Your task to perform on an android device: Go to calendar. Show me events next week Image 0: 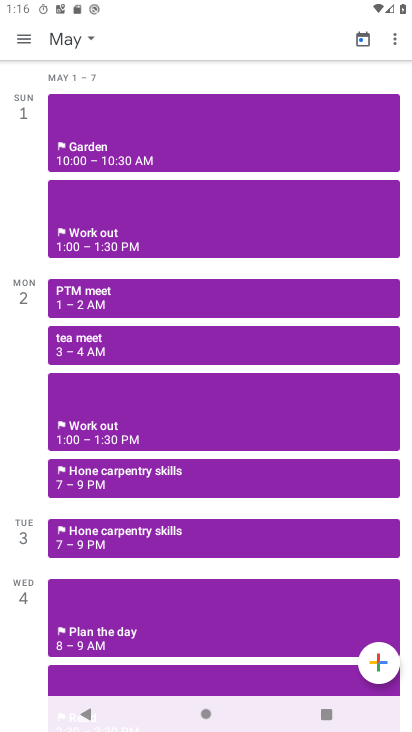
Step 0: press home button
Your task to perform on an android device: Go to calendar. Show me events next week Image 1: 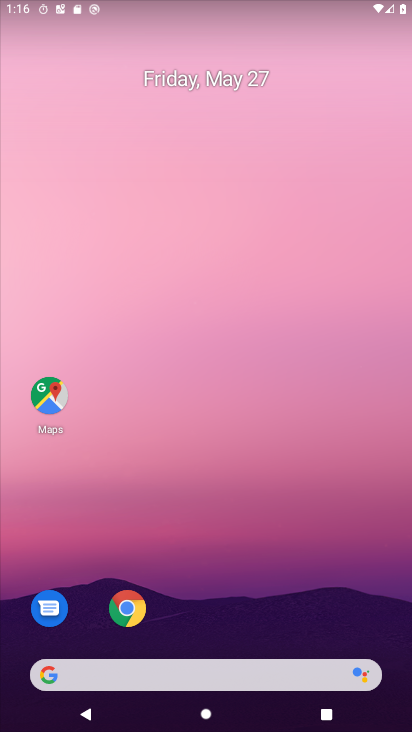
Step 1: drag from (394, 663) to (359, 206)
Your task to perform on an android device: Go to calendar. Show me events next week Image 2: 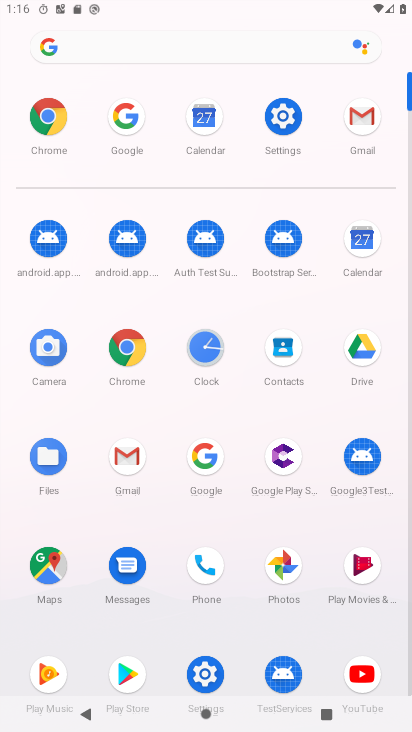
Step 2: click (354, 226)
Your task to perform on an android device: Go to calendar. Show me events next week Image 3: 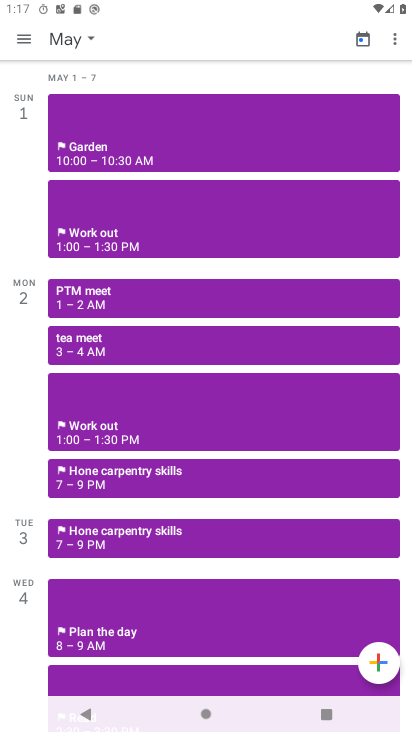
Step 3: click (90, 38)
Your task to perform on an android device: Go to calendar. Show me events next week Image 4: 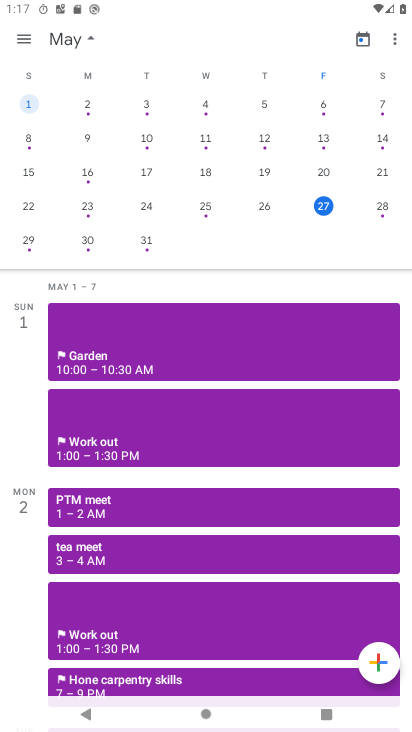
Step 4: click (83, 242)
Your task to perform on an android device: Go to calendar. Show me events next week Image 5: 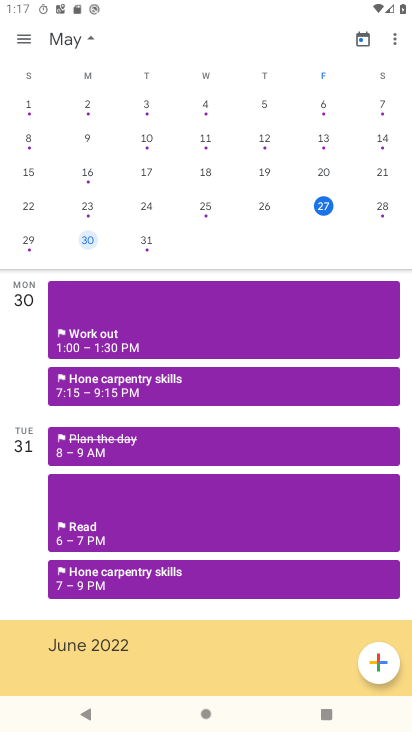
Step 5: click (26, 38)
Your task to perform on an android device: Go to calendar. Show me events next week Image 6: 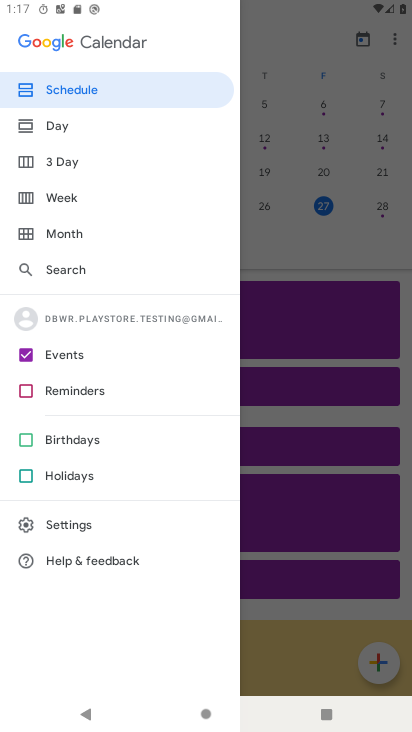
Step 6: click (50, 195)
Your task to perform on an android device: Go to calendar. Show me events next week Image 7: 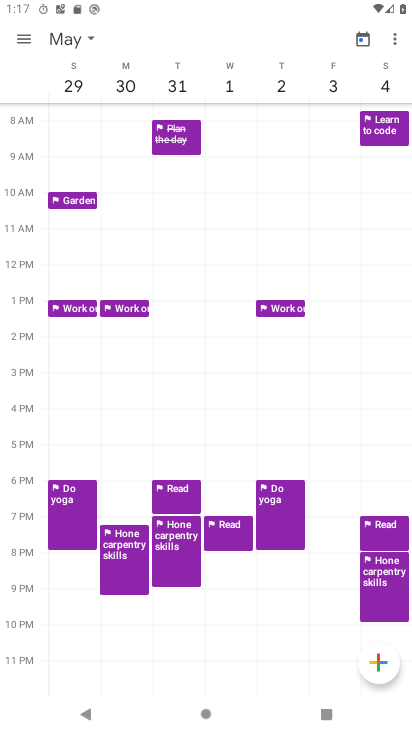
Step 7: task complete